Your task to perform on an android device: Open Android settings Image 0: 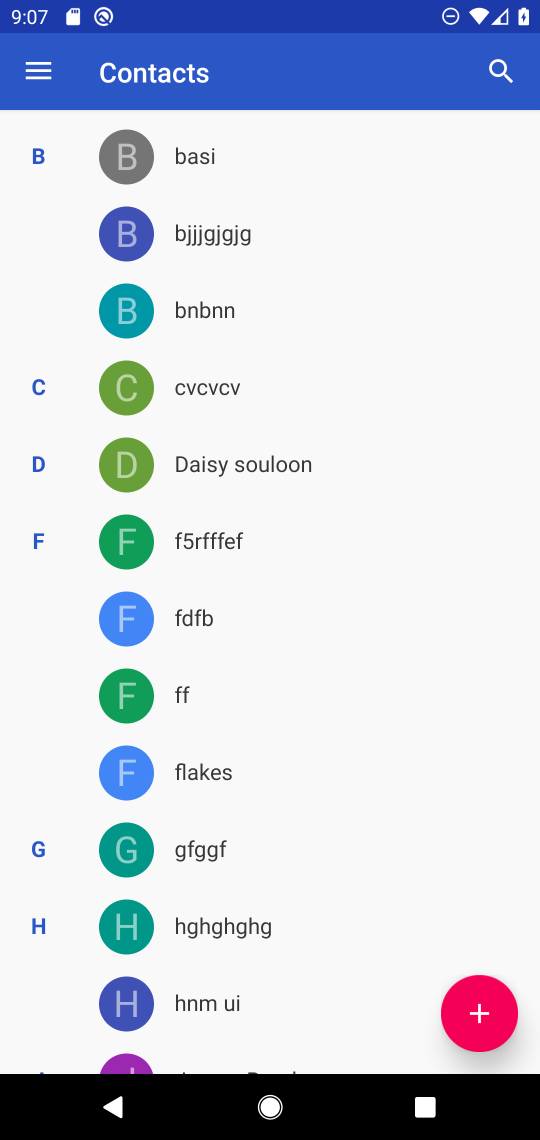
Step 0: press home button
Your task to perform on an android device: Open Android settings Image 1: 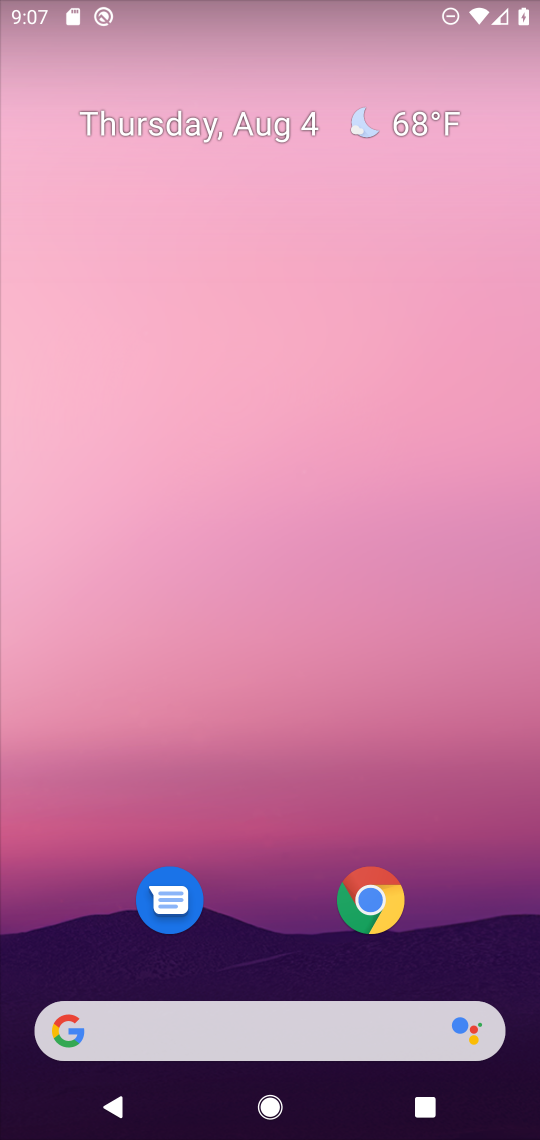
Step 1: drag from (227, 969) to (235, 122)
Your task to perform on an android device: Open Android settings Image 2: 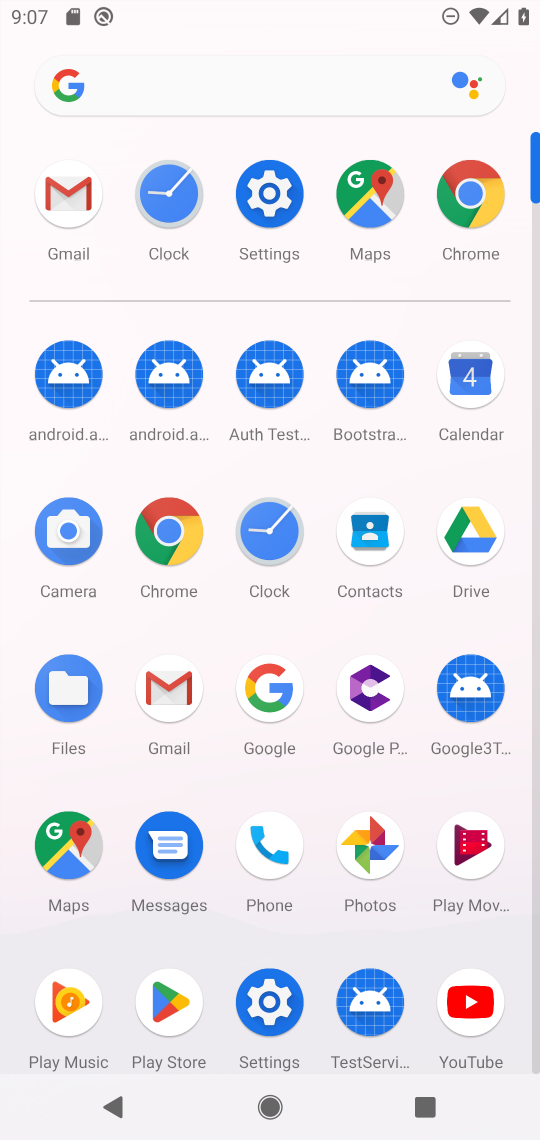
Step 2: click (268, 199)
Your task to perform on an android device: Open Android settings Image 3: 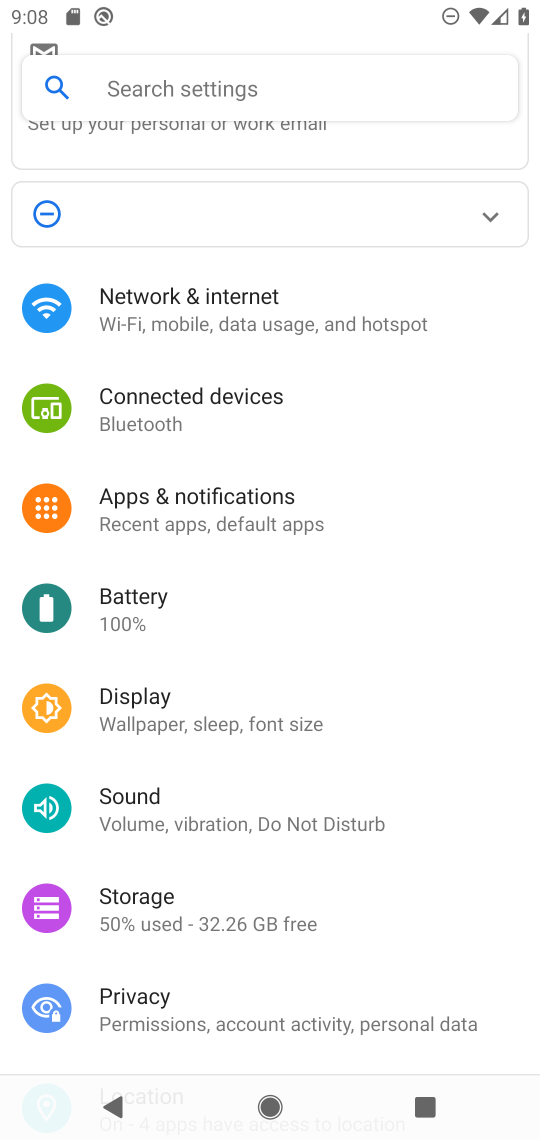
Step 3: click (186, 306)
Your task to perform on an android device: Open Android settings Image 4: 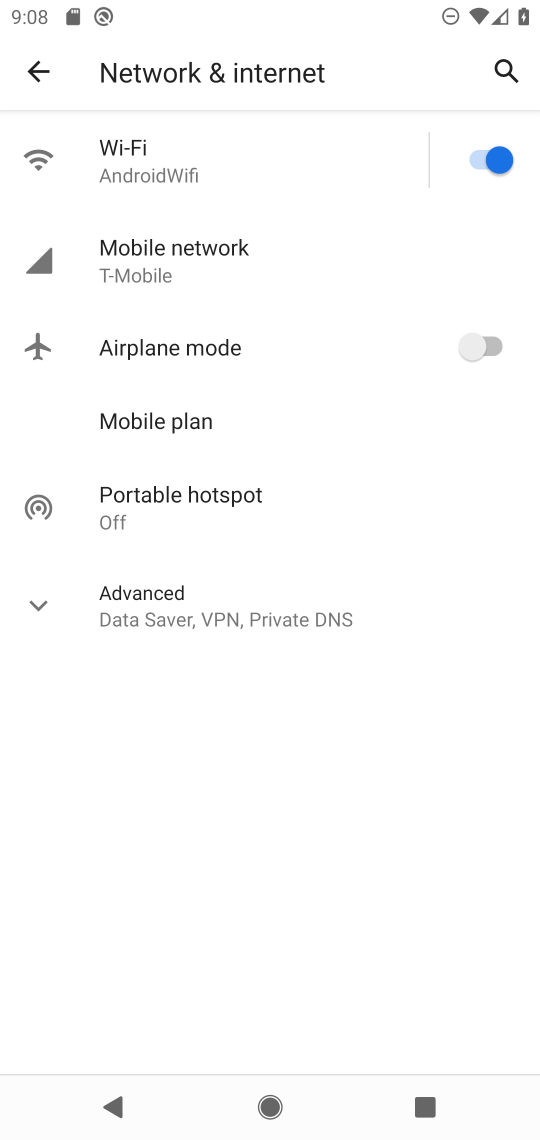
Step 4: click (251, 446)
Your task to perform on an android device: Open Android settings Image 5: 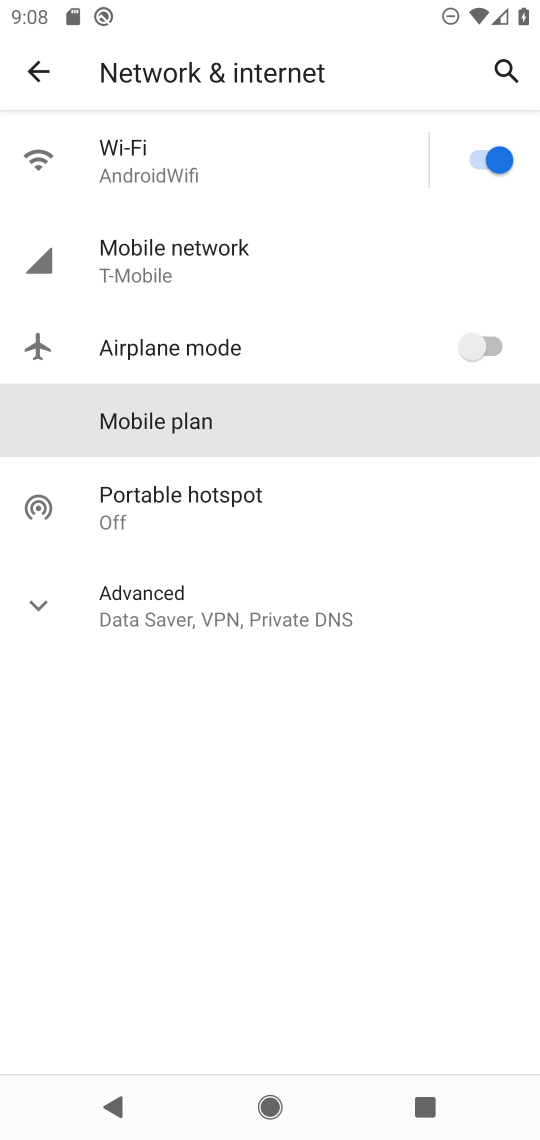
Step 5: click (36, 68)
Your task to perform on an android device: Open Android settings Image 6: 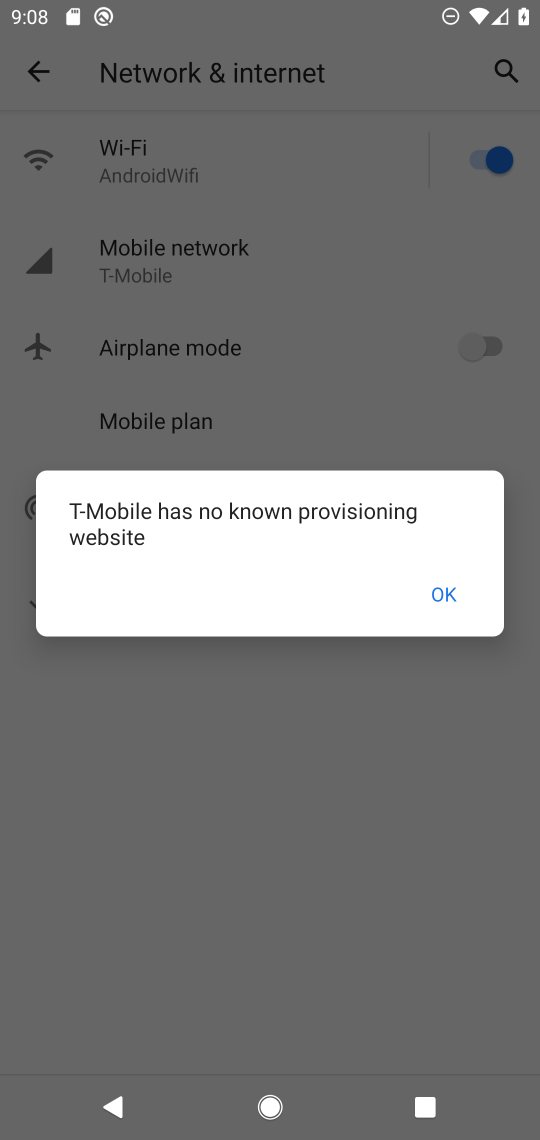
Step 6: click (434, 595)
Your task to perform on an android device: Open Android settings Image 7: 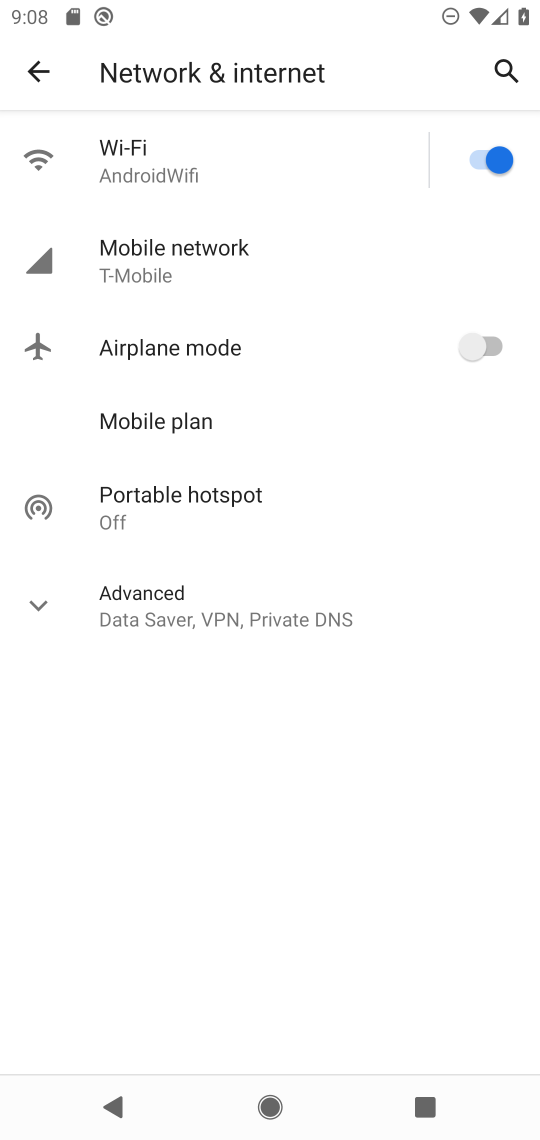
Step 7: click (31, 66)
Your task to perform on an android device: Open Android settings Image 8: 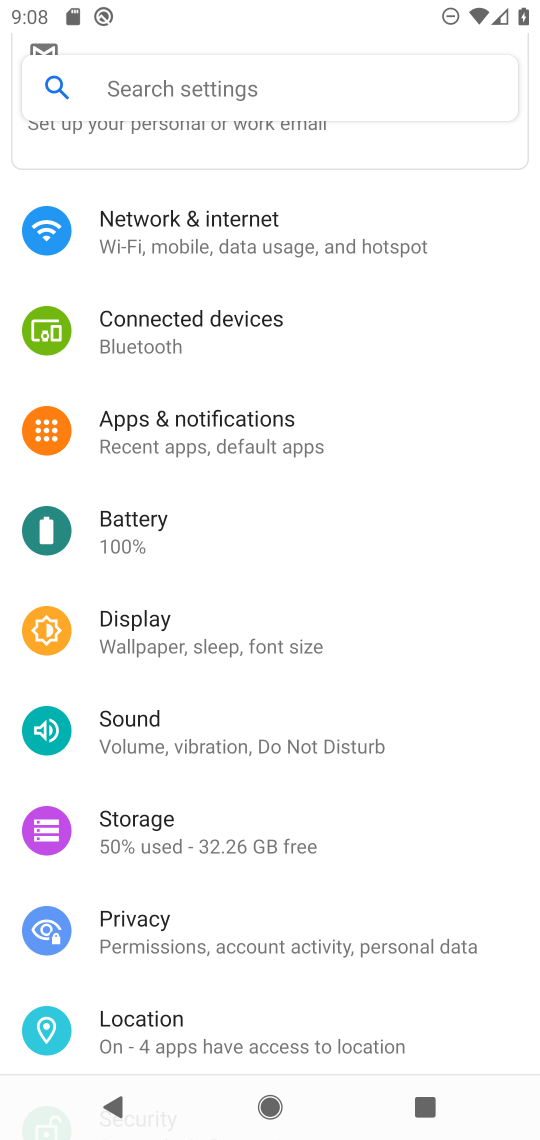
Step 8: drag from (216, 891) to (280, 421)
Your task to perform on an android device: Open Android settings Image 9: 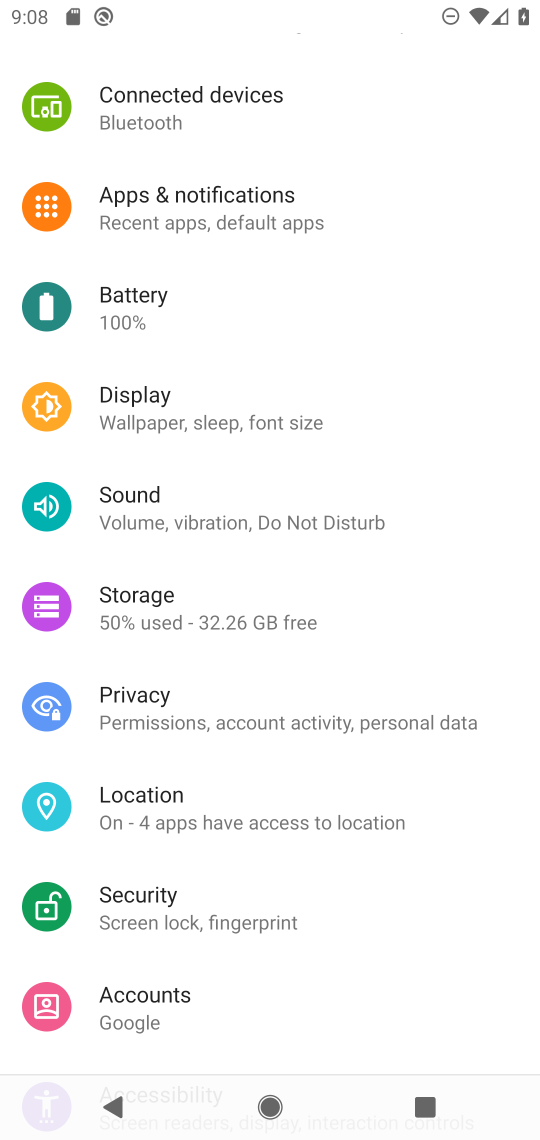
Step 9: drag from (195, 965) to (204, 526)
Your task to perform on an android device: Open Android settings Image 10: 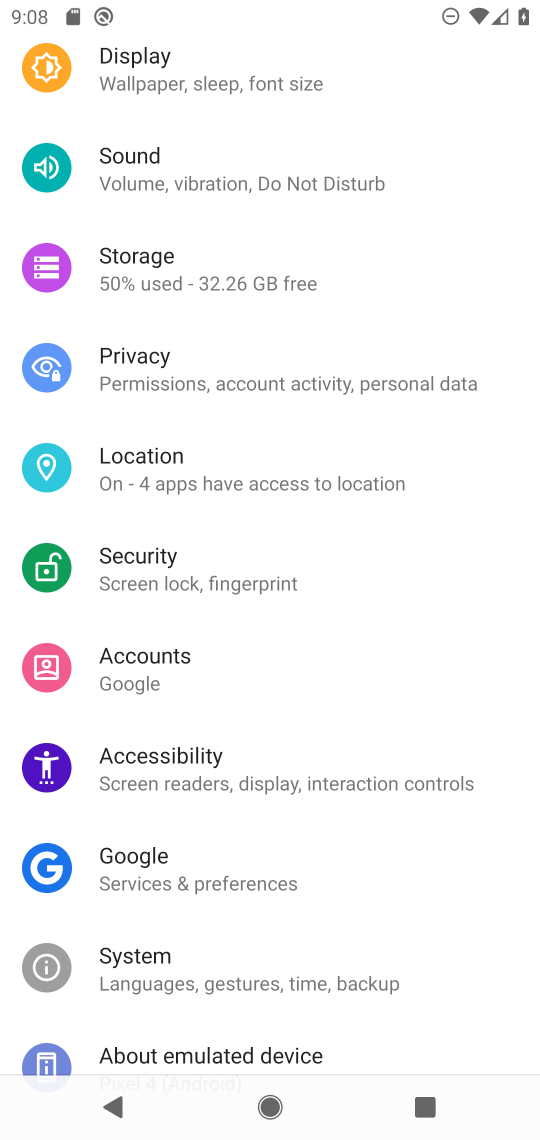
Step 10: click (147, 1061)
Your task to perform on an android device: Open Android settings Image 11: 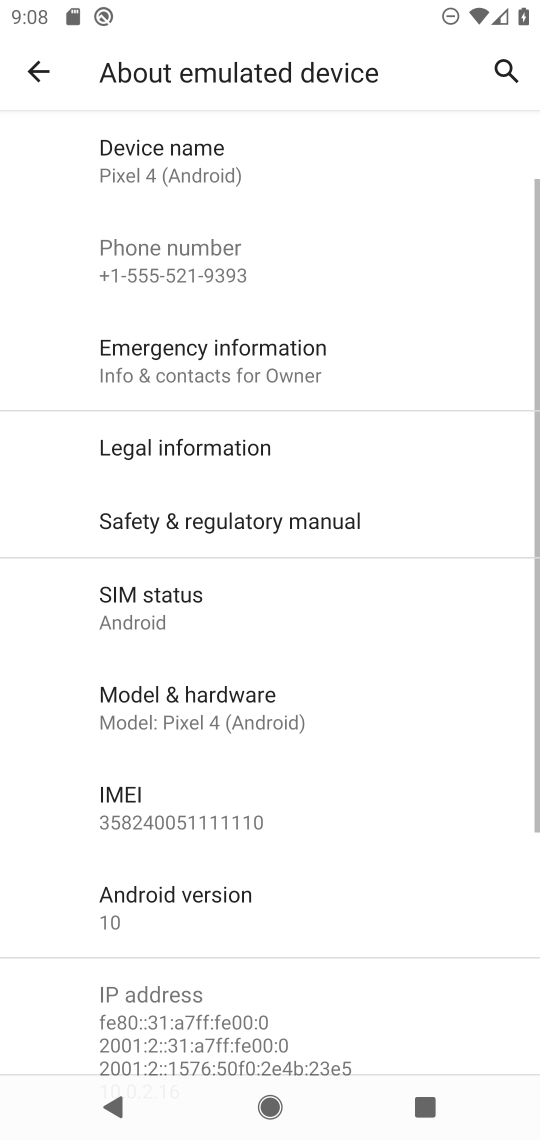
Step 11: click (140, 909)
Your task to perform on an android device: Open Android settings Image 12: 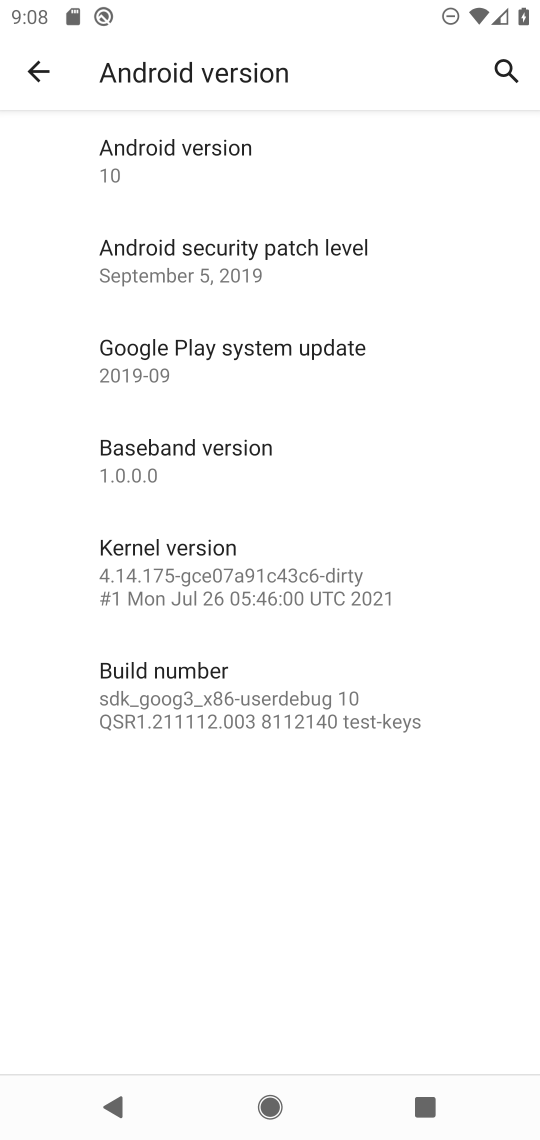
Step 12: task complete